Your task to perform on an android device: move a message to another label in the gmail app Image 0: 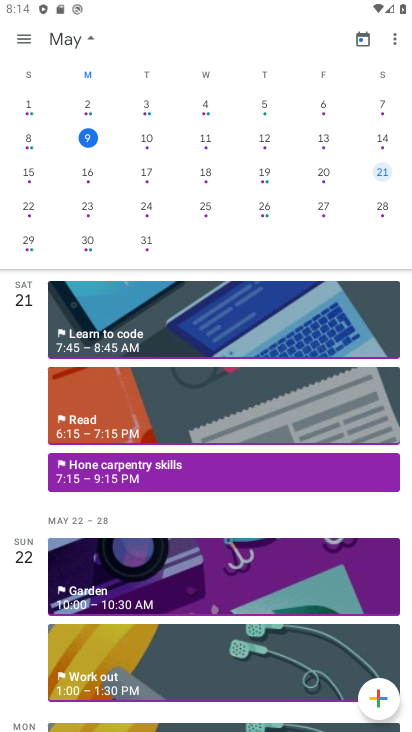
Step 0: press home button
Your task to perform on an android device: move a message to another label in the gmail app Image 1: 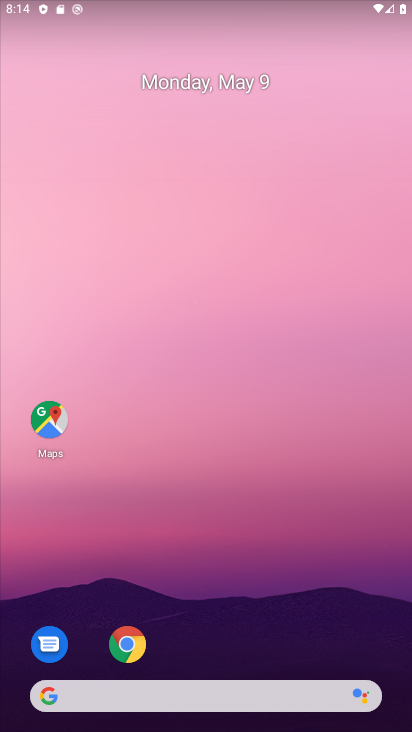
Step 1: drag from (266, 562) to (298, 151)
Your task to perform on an android device: move a message to another label in the gmail app Image 2: 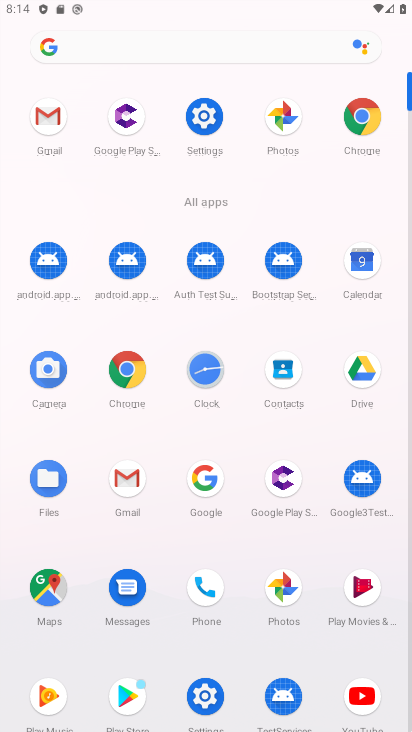
Step 2: click (128, 488)
Your task to perform on an android device: move a message to another label in the gmail app Image 3: 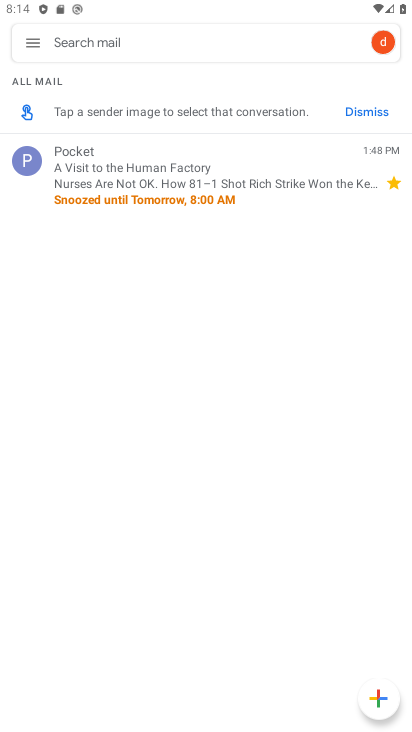
Step 3: click (32, 166)
Your task to perform on an android device: move a message to another label in the gmail app Image 4: 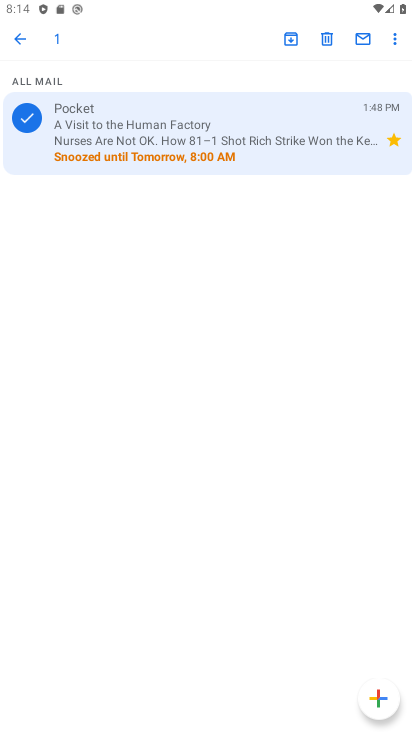
Step 4: click (401, 35)
Your task to perform on an android device: move a message to another label in the gmail app Image 5: 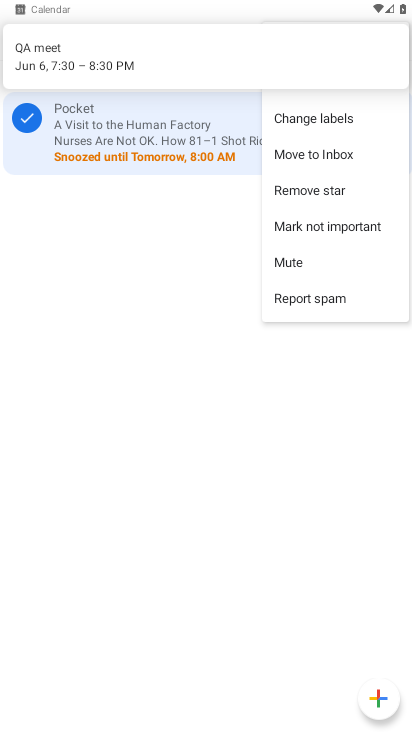
Step 5: click (347, 118)
Your task to perform on an android device: move a message to another label in the gmail app Image 6: 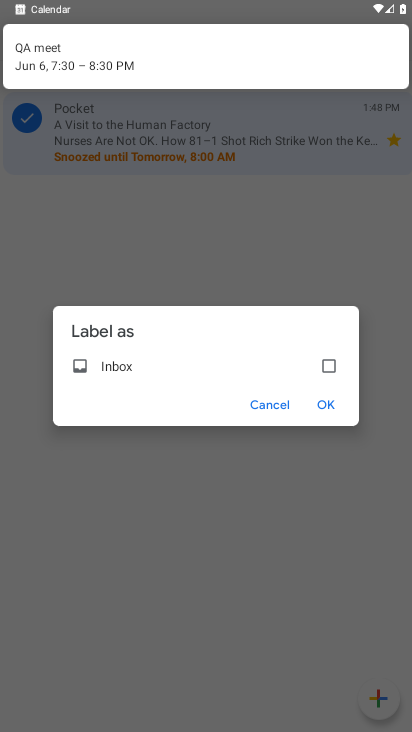
Step 6: click (341, 357)
Your task to perform on an android device: move a message to another label in the gmail app Image 7: 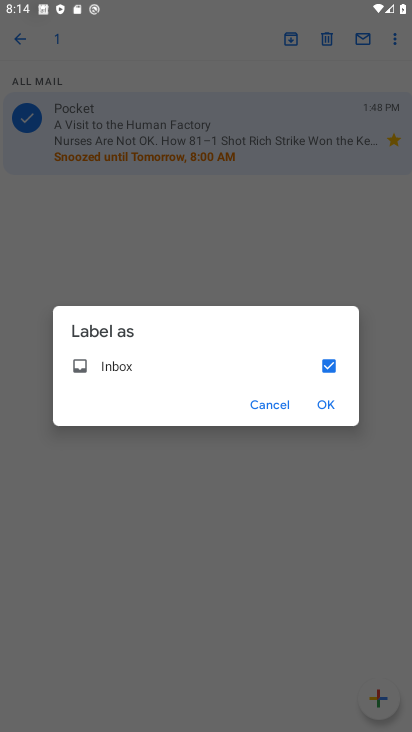
Step 7: click (333, 411)
Your task to perform on an android device: move a message to another label in the gmail app Image 8: 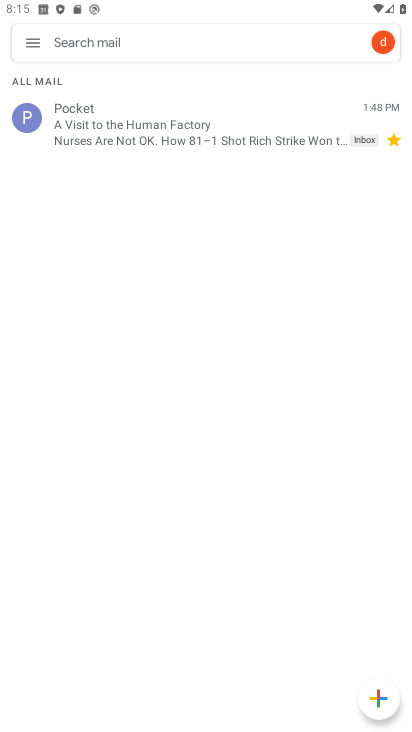
Step 8: task complete